Your task to perform on an android device: Turn off the flashlight Image 0: 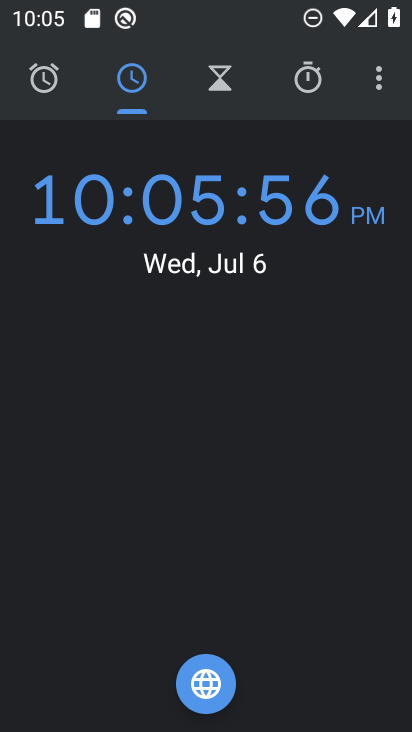
Step 0: press home button
Your task to perform on an android device: Turn off the flashlight Image 1: 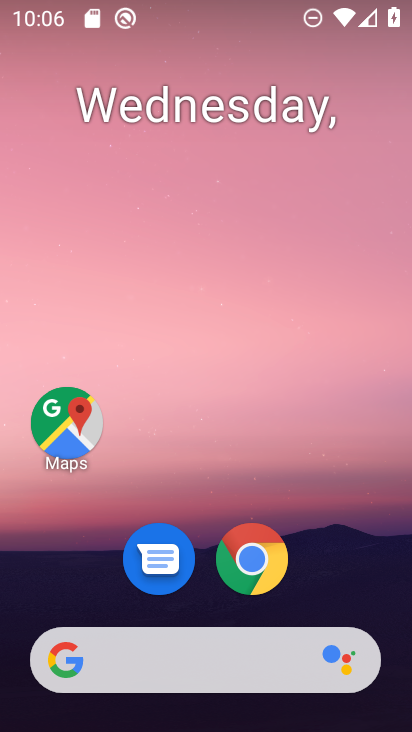
Step 1: drag from (223, 5) to (242, 335)
Your task to perform on an android device: Turn off the flashlight Image 2: 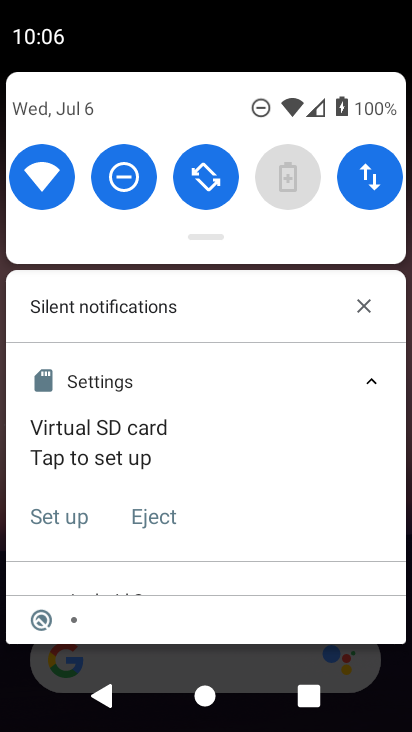
Step 2: drag from (240, 121) to (243, 351)
Your task to perform on an android device: Turn off the flashlight Image 3: 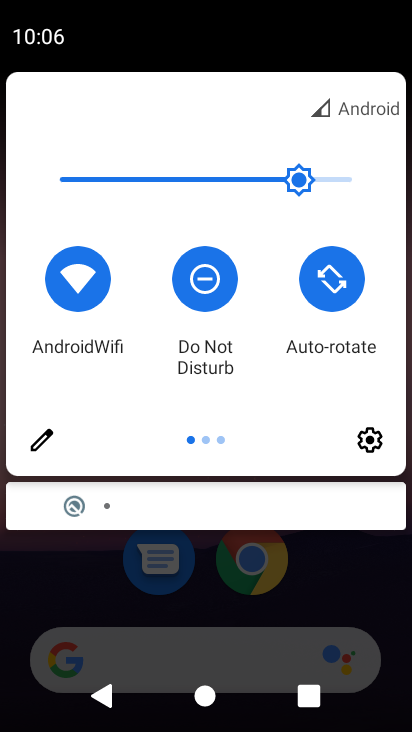
Step 3: click (51, 444)
Your task to perform on an android device: Turn off the flashlight Image 4: 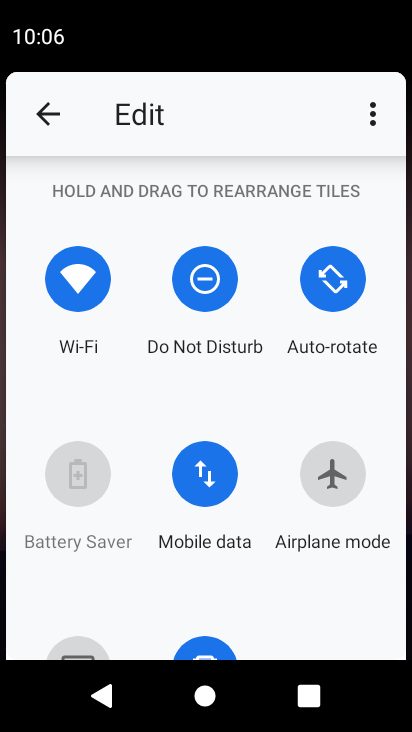
Step 4: task complete